Your task to perform on an android device: Open location settings Image 0: 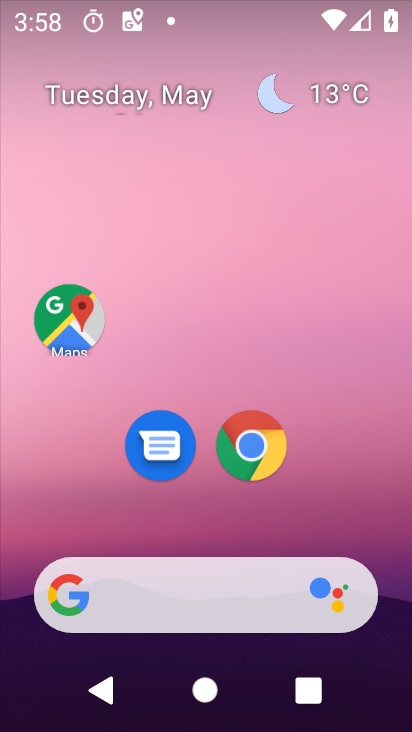
Step 0: press home button
Your task to perform on an android device: Open location settings Image 1: 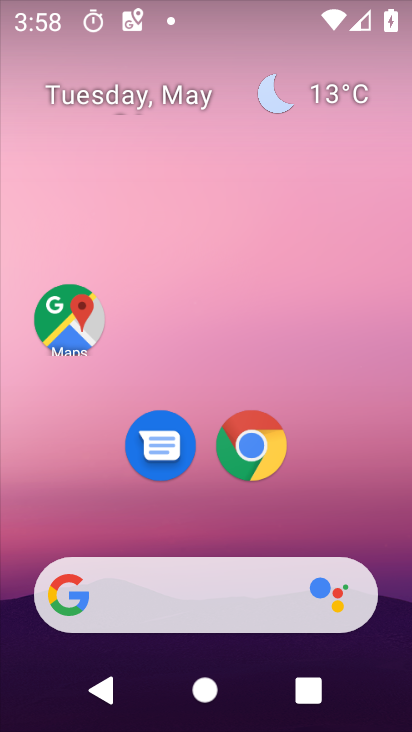
Step 1: drag from (209, 521) to (222, 0)
Your task to perform on an android device: Open location settings Image 2: 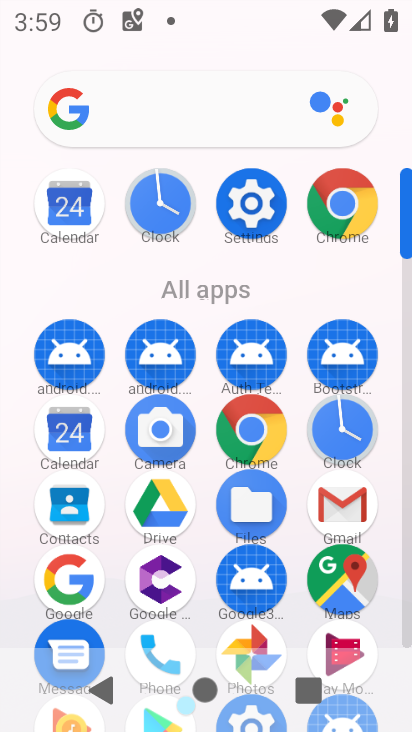
Step 2: click (248, 200)
Your task to perform on an android device: Open location settings Image 3: 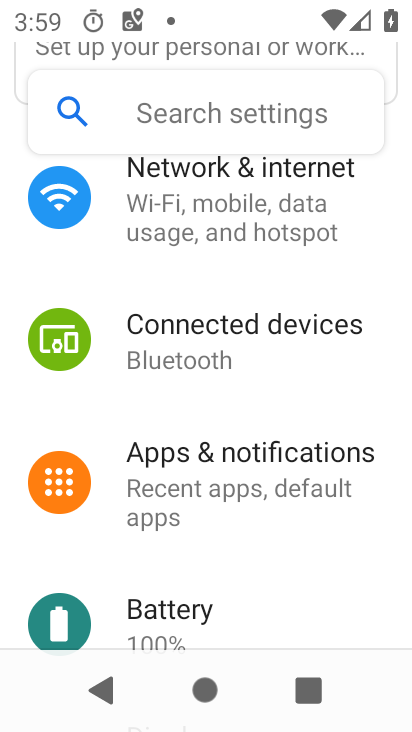
Step 3: drag from (249, 602) to (264, 176)
Your task to perform on an android device: Open location settings Image 4: 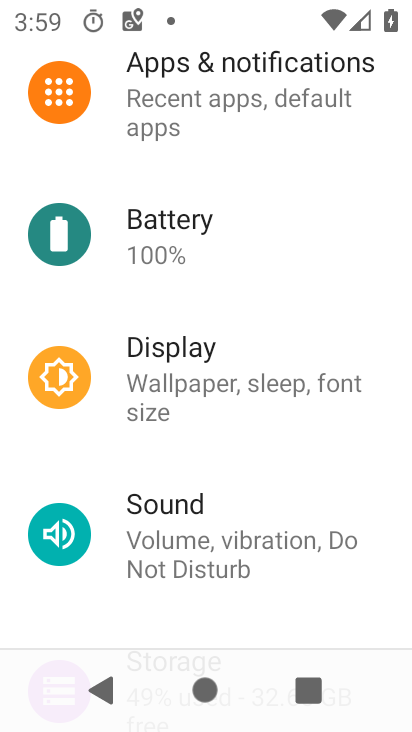
Step 4: drag from (224, 562) to (245, 204)
Your task to perform on an android device: Open location settings Image 5: 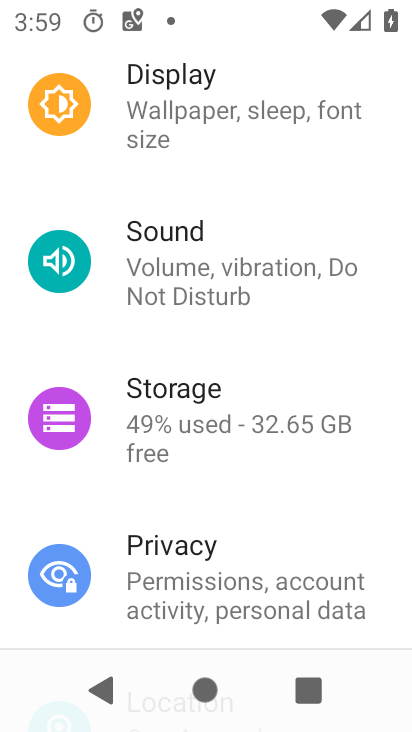
Step 5: drag from (249, 581) to (261, 288)
Your task to perform on an android device: Open location settings Image 6: 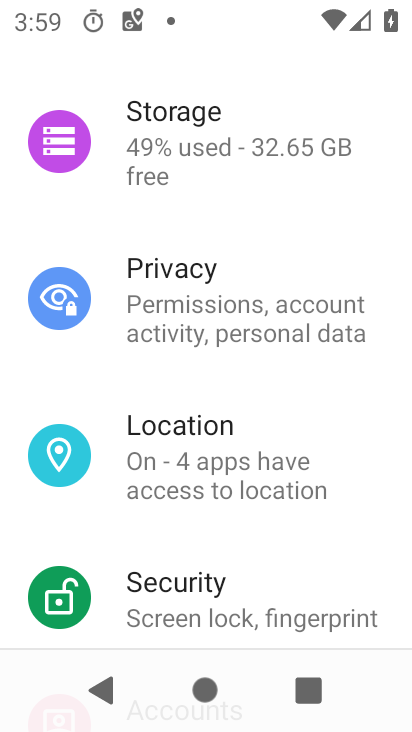
Step 6: click (198, 460)
Your task to perform on an android device: Open location settings Image 7: 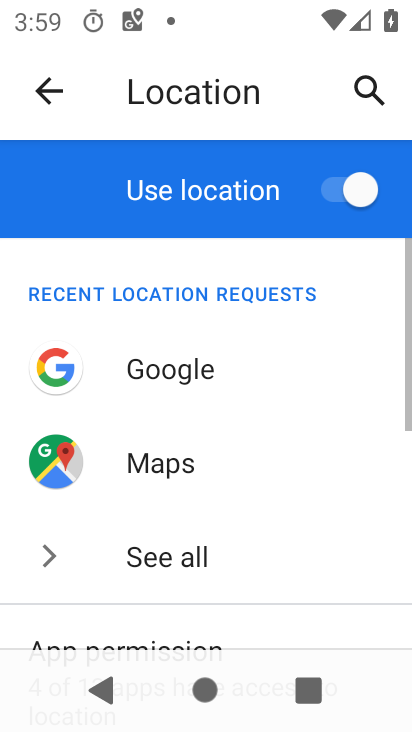
Step 7: drag from (199, 594) to (223, 258)
Your task to perform on an android device: Open location settings Image 8: 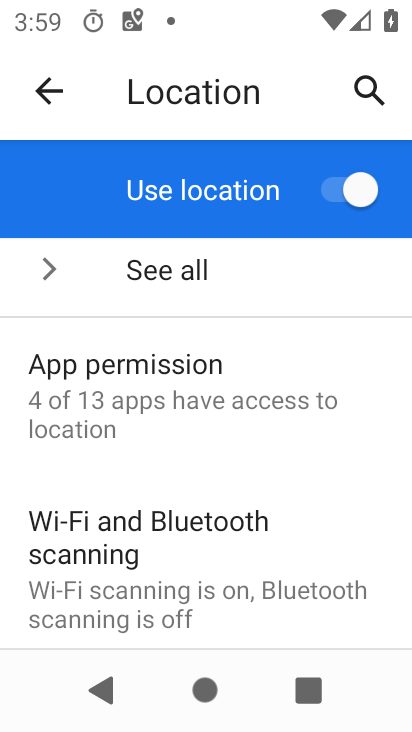
Step 8: drag from (205, 606) to (198, 328)
Your task to perform on an android device: Open location settings Image 9: 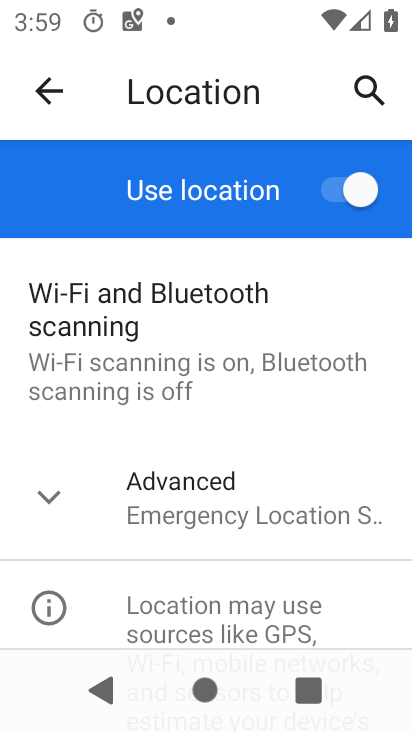
Step 9: click (41, 490)
Your task to perform on an android device: Open location settings Image 10: 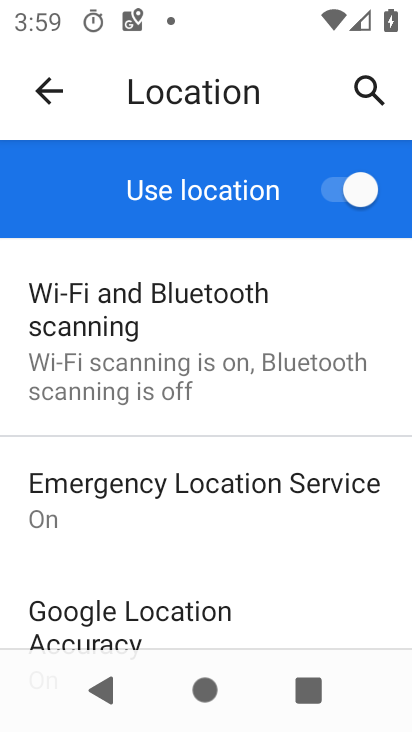
Step 10: task complete